Your task to perform on an android device: turn pop-ups on in chrome Image 0: 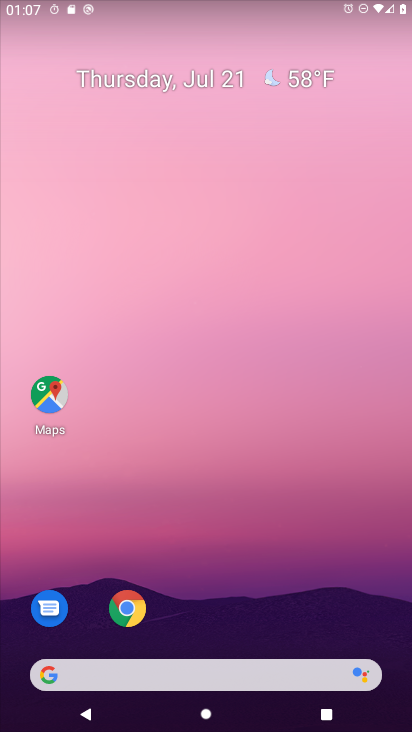
Step 0: press home button
Your task to perform on an android device: turn pop-ups on in chrome Image 1: 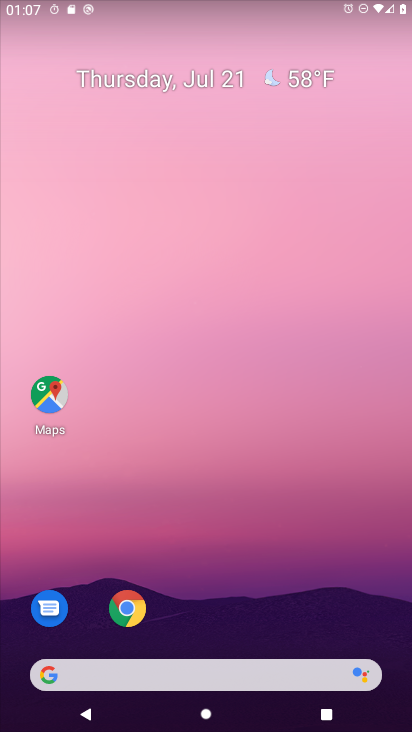
Step 1: drag from (301, 521) to (1, 306)
Your task to perform on an android device: turn pop-ups on in chrome Image 2: 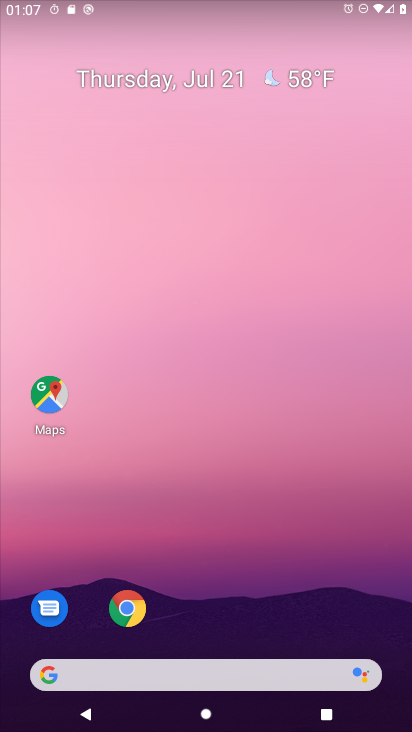
Step 2: drag from (242, 651) to (245, 97)
Your task to perform on an android device: turn pop-ups on in chrome Image 3: 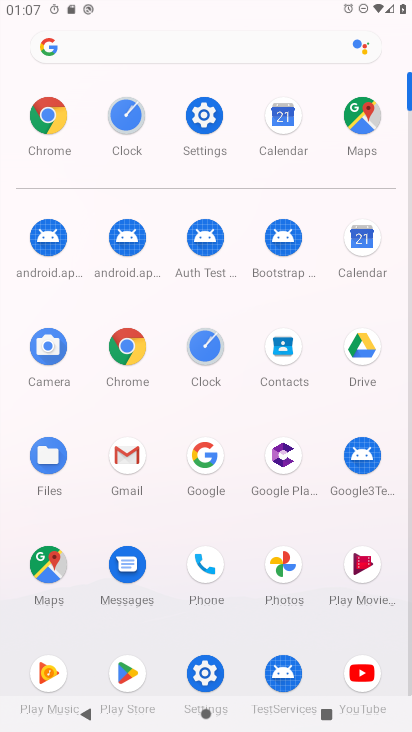
Step 3: click (33, 110)
Your task to perform on an android device: turn pop-ups on in chrome Image 4: 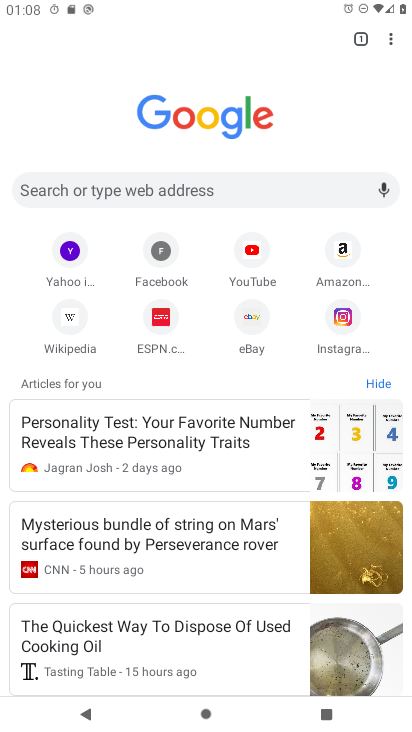
Step 4: drag from (380, 33) to (257, 330)
Your task to perform on an android device: turn pop-ups on in chrome Image 5: 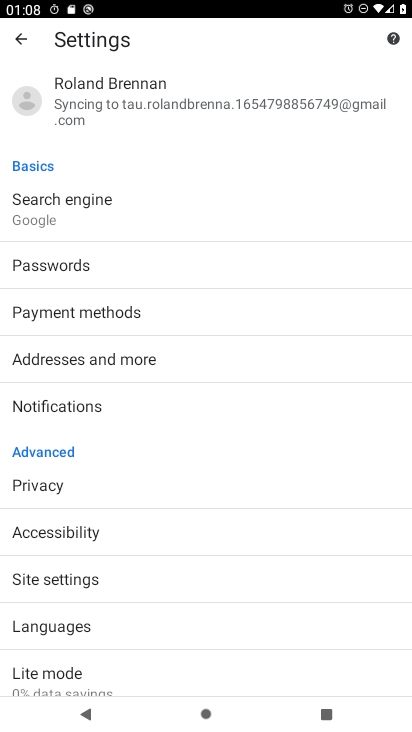
Step 5: click (54, 582)
Your task to perform on an android device: turn pop-ups on in chrome Image 6: 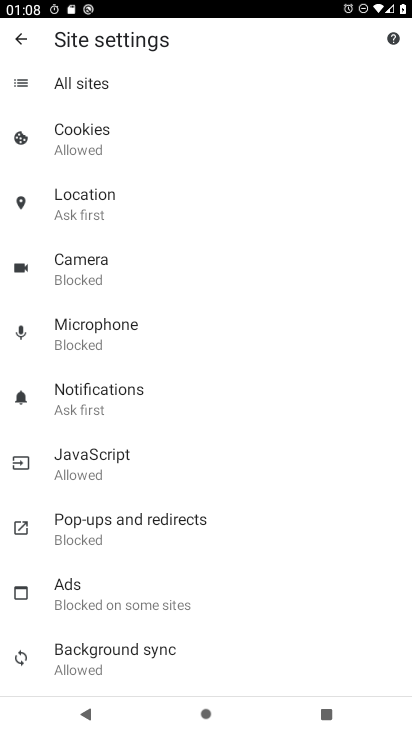
Step 6: click (98, 532)
Your task to perform on an android device: turn pop-ups on in chrome Image 7: 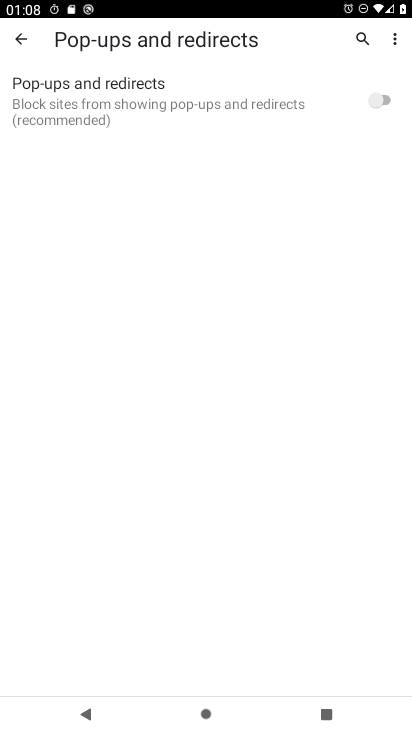
Step 7: click (381, 90)
Your task to perform on an android device: turn pop-ups on in chrome Image 8: 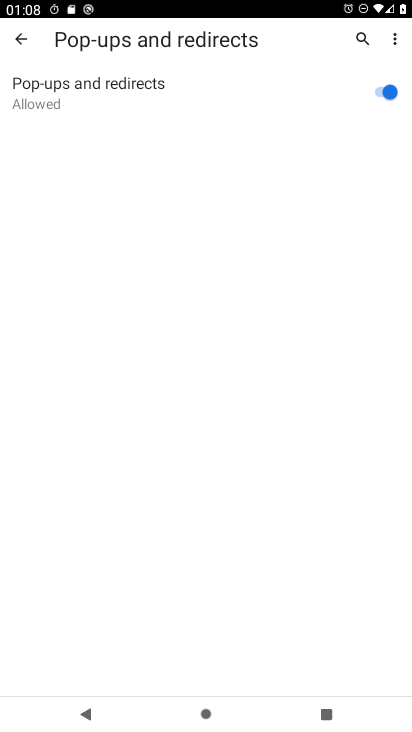
Step 8: task complete